Your task to perform on an android device: Go to Yahoo.com Image 0: 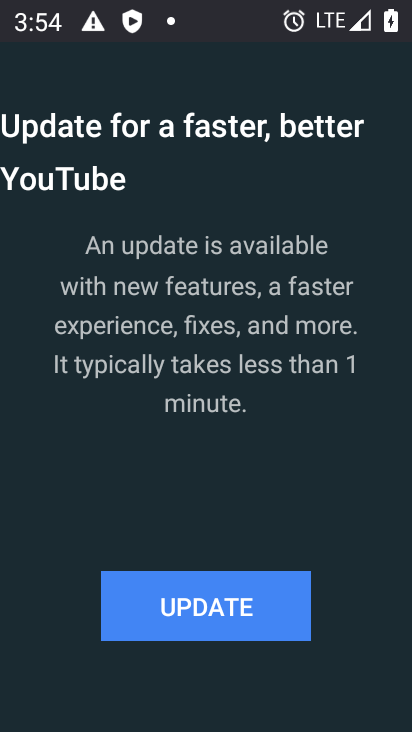
Step 0: press back button
Your task to perform on an android device: Go to Yahoo.com Image 1: 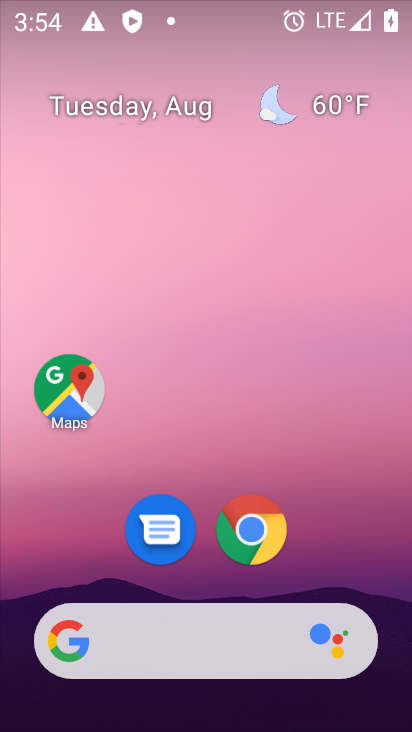
Step 1: click (255, 529)
Your task to perform on an android device: Go to Yahoo.com Image 2: 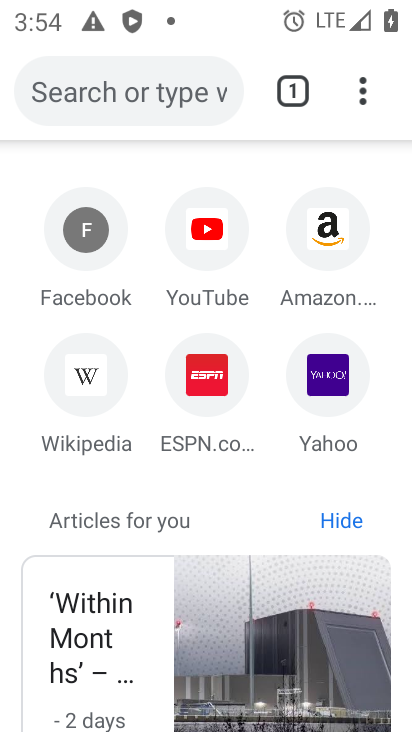
Step 2: click (330, 358)
Your task to perform on an android device: Go to Yahoo.com Image 3: 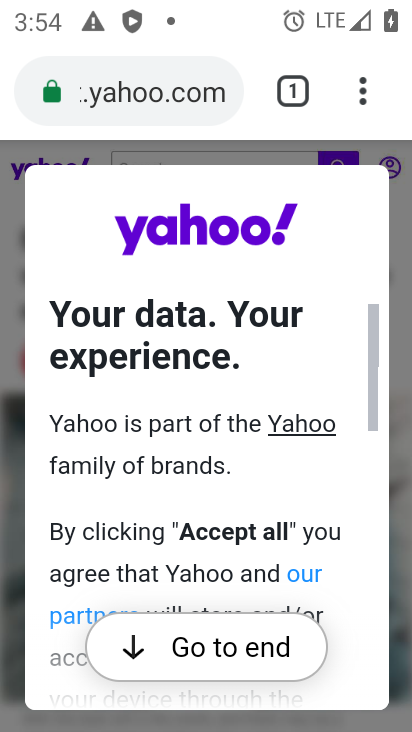
Step 3: task complete